Your task to perform on an android device: Open my contact list Image 0: 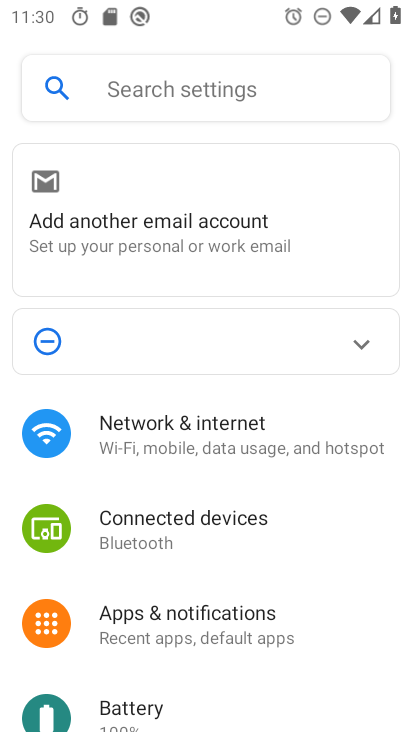
Step 0: press home button
Your task to perform on an android device: Open my contact list Image 1: 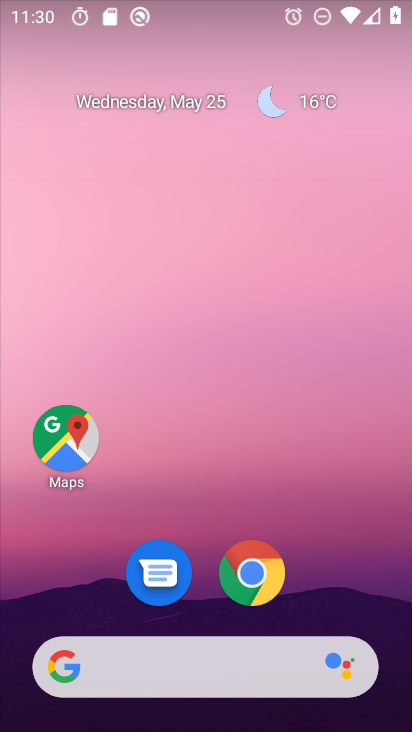
Step 1: drag from (346, 606) to (352, 18)
Your task to perform on an android device: Open my contact list Image 2: 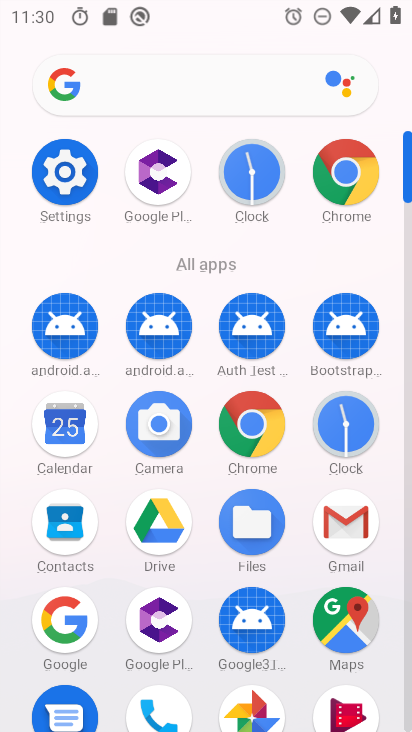
Step 2: click (64, 523)
Your task to perform on an android device: Open my contact list Image 3: 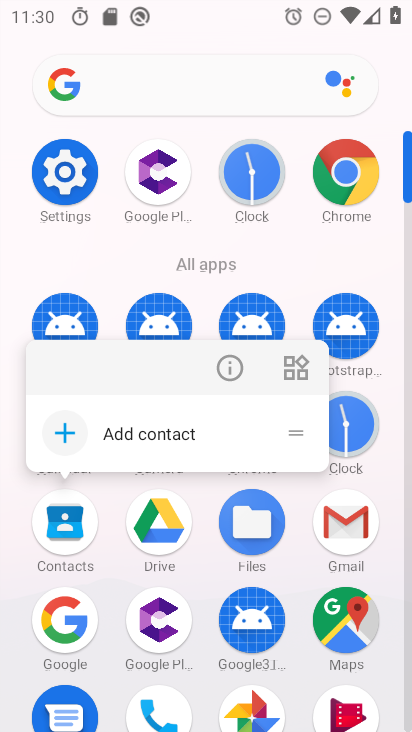
Step 3: click (63, 523)
Your task to perform on an android device: Open my contact list Image 4: 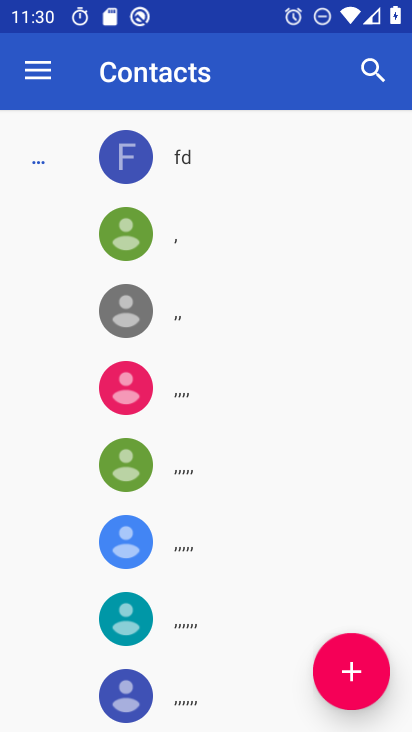
Step 4: task complete